Your task to perform on an android device: Open calendar and show me the first week of next month Image 0: 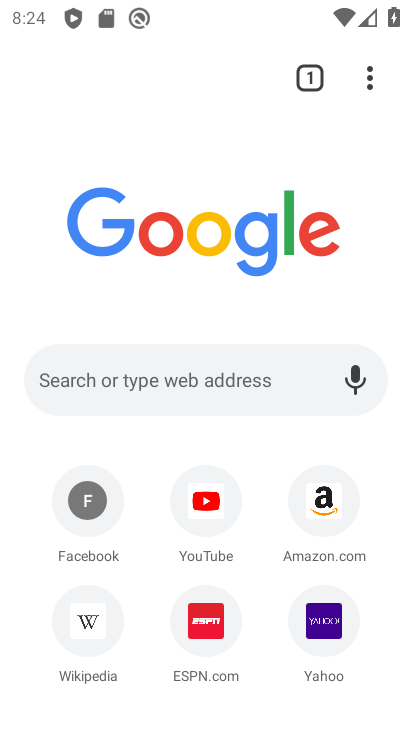
Step 0: press home button
Your task to perform on an android device: Open calendar and show me the first week of next month Image 1: 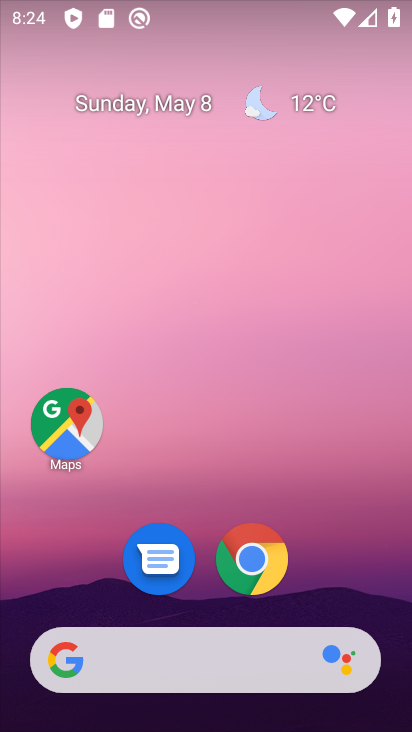
Step 1: drag from (204, 600) to (267, 168)
Your task to perform on an android device: Open calendar and show me the first week of next month Image 2: 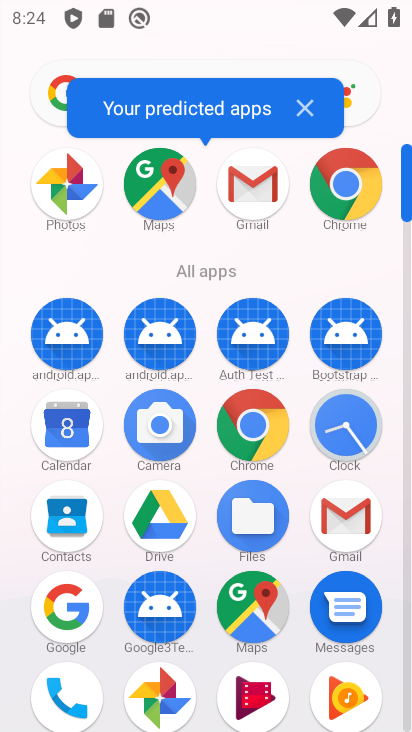
Step 2: click (68, 424)
Your task to perform on an android device: Open calendar and show me the first week of next month Image 3: 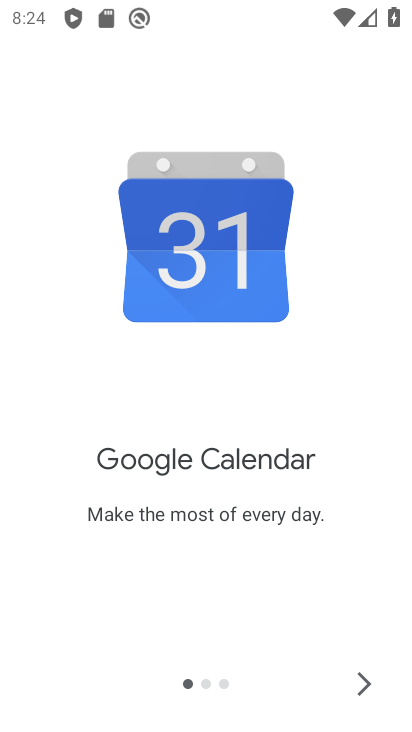
Step 3: click (367, 670)
Your task to perform on an android device: Open calendar and show me the first week of next month Image 4: 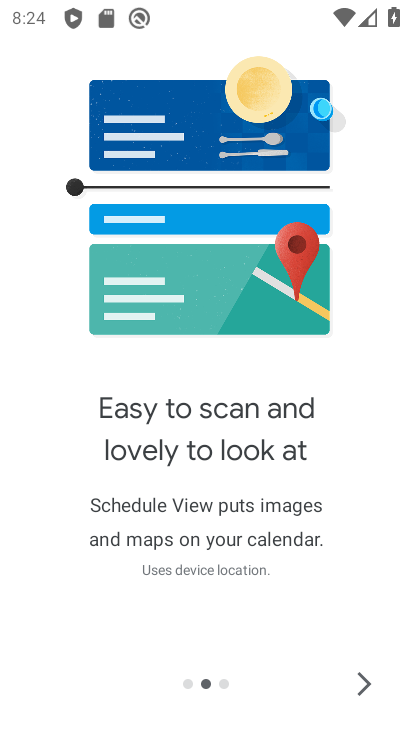
Step 4: click (367, 670)
Your task to perform on an android device: Open calendar and show me the first week of next month Image 5: 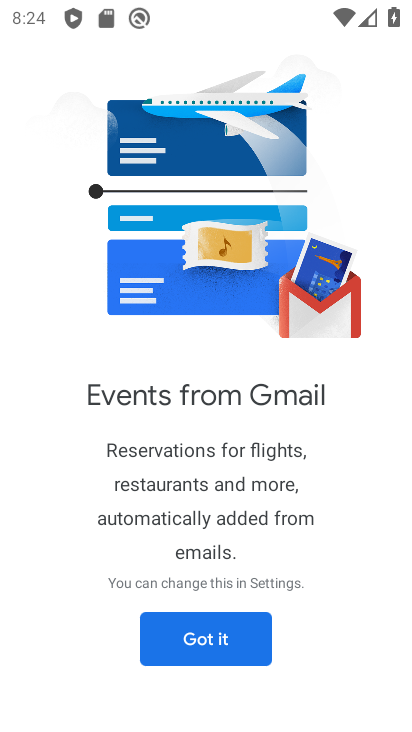
Step 5: click (367, 670)
Your task to perform on an android device: Open calendar and show me the first week of next month Image 6: 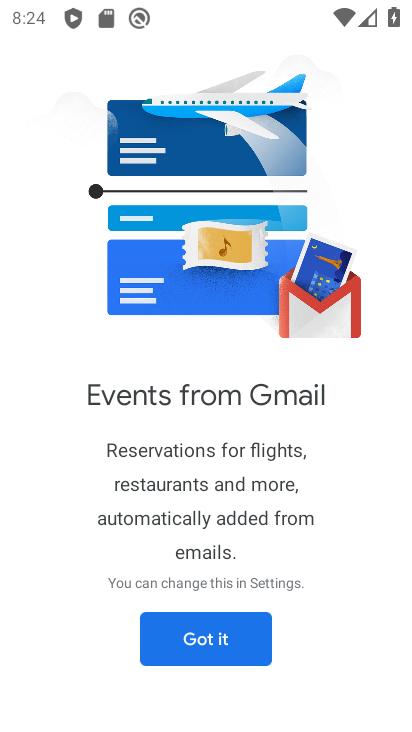
Step 6: click (247, 639)
Your task to perform on an android device: Open calendar and show me the first week of next month Image 7: 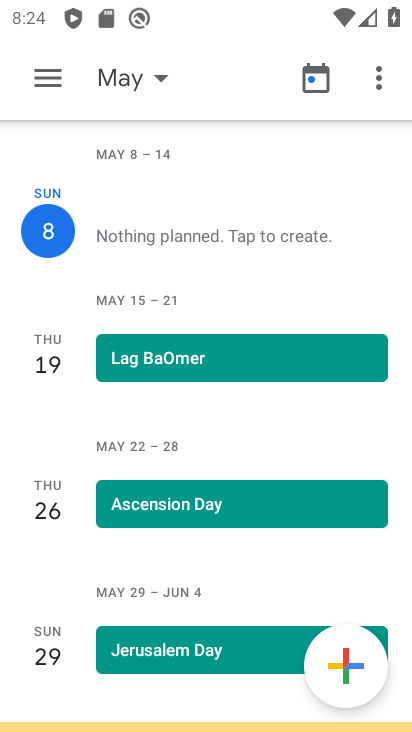
Step 7: click (154, 82)
Your task to perform on an android device: Open calendar and show me the first week of next month Image 8: 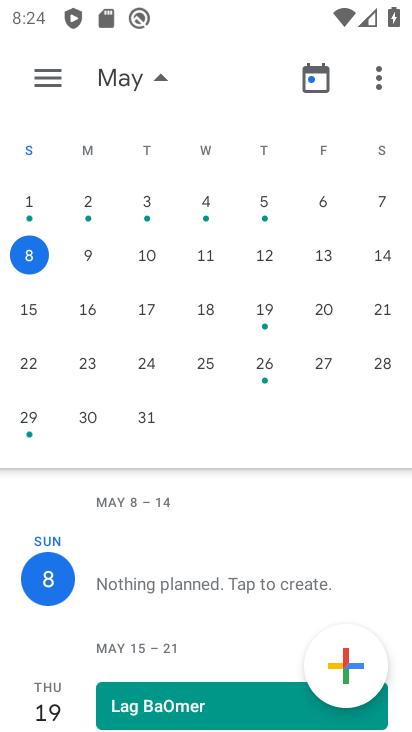
Step 8: drag from (369, 411) to (14, 377)
Your task to perform on an android device: Open calendar and show me the first week of next month Image 9: 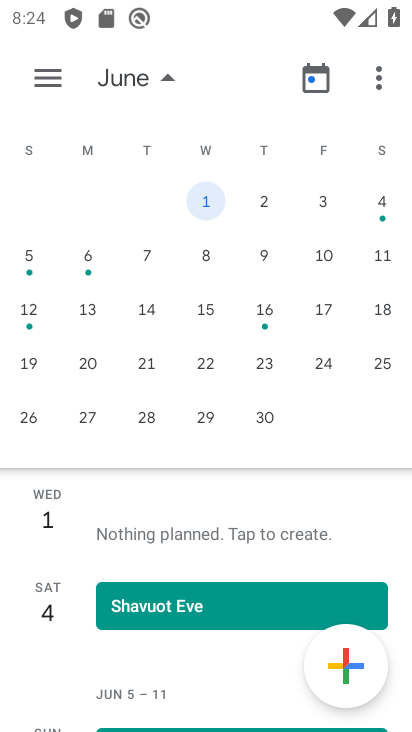
Step 9: click (330, 203)
Your task to perform on an android device: Open calendar and show me the first week of next month Image 10: 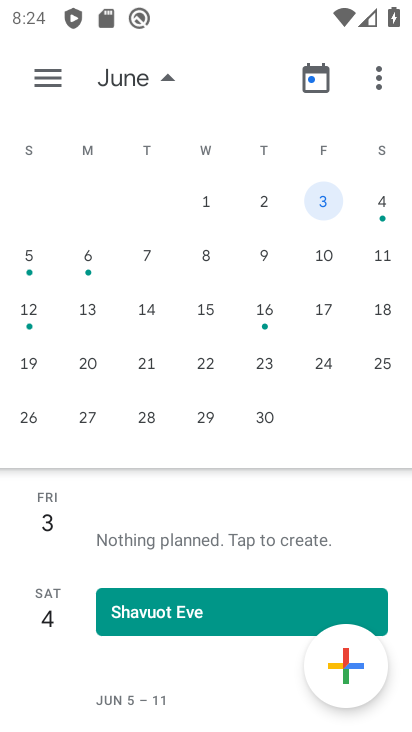
Step 10: task complete